Your task to perform on an android device: open app "Yahoo Mail" Image 0: 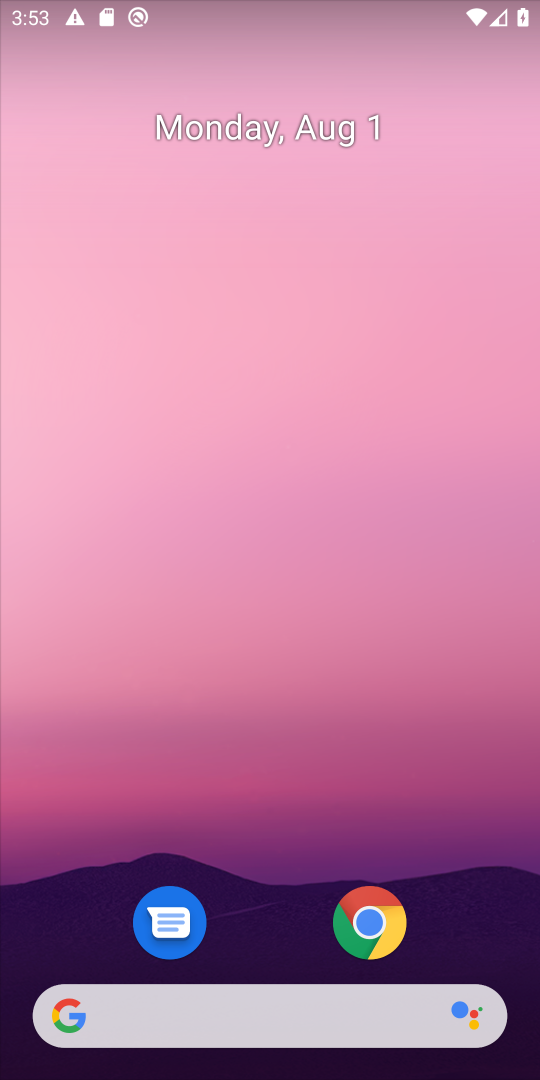
Step 0: drag from (304, 859) to (164, 7)
Your task to perform on an android device: open app "Yahoo Mail" Image 1: 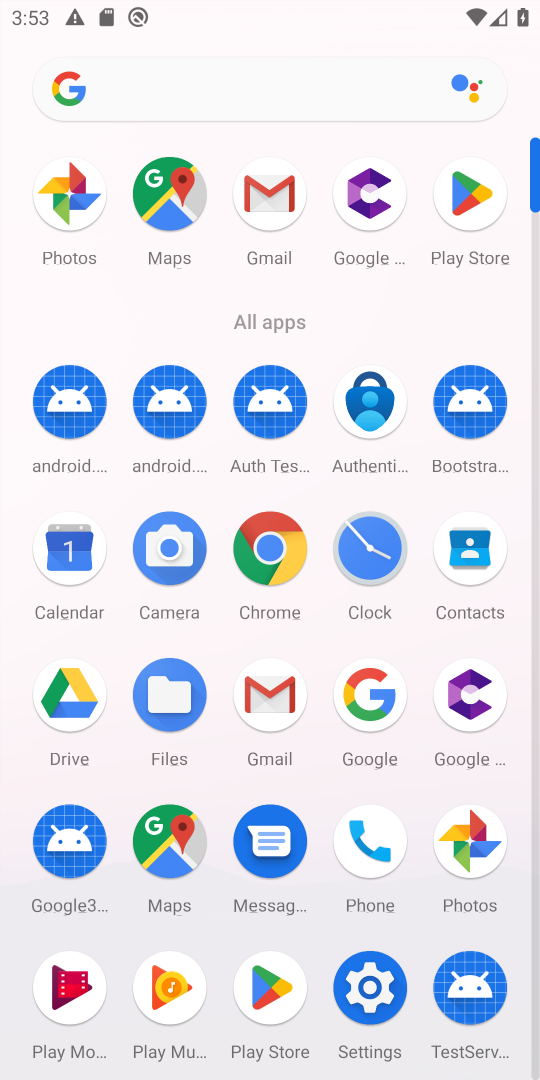
Step 1: click (490, 218)
Your task to perform on an android device: open app "Yahoo Mail" Image 2: 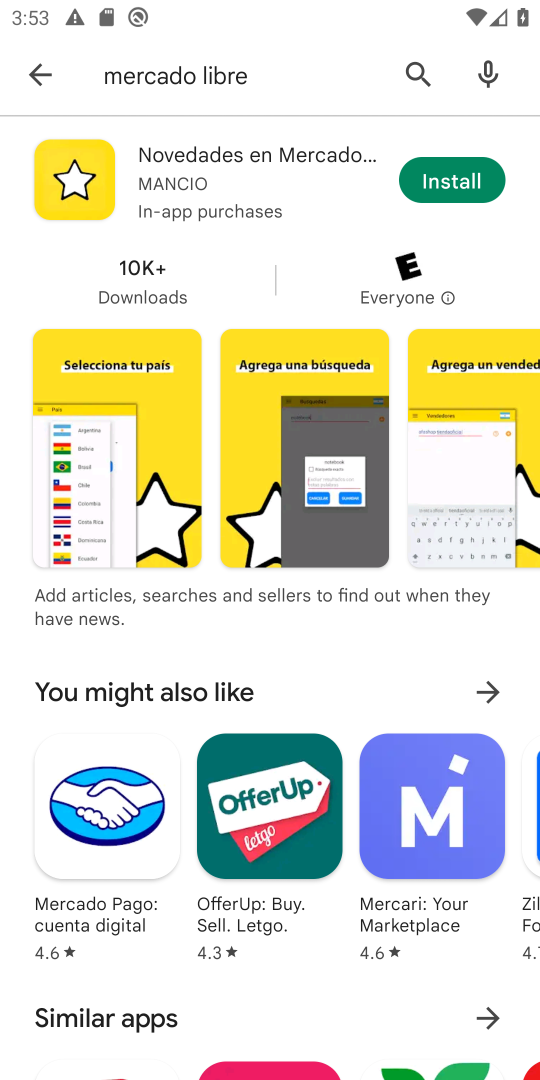
Step 2: click (416, 79)
Your task to perform on an android device: open app "Yahoo Mail" Image 3: 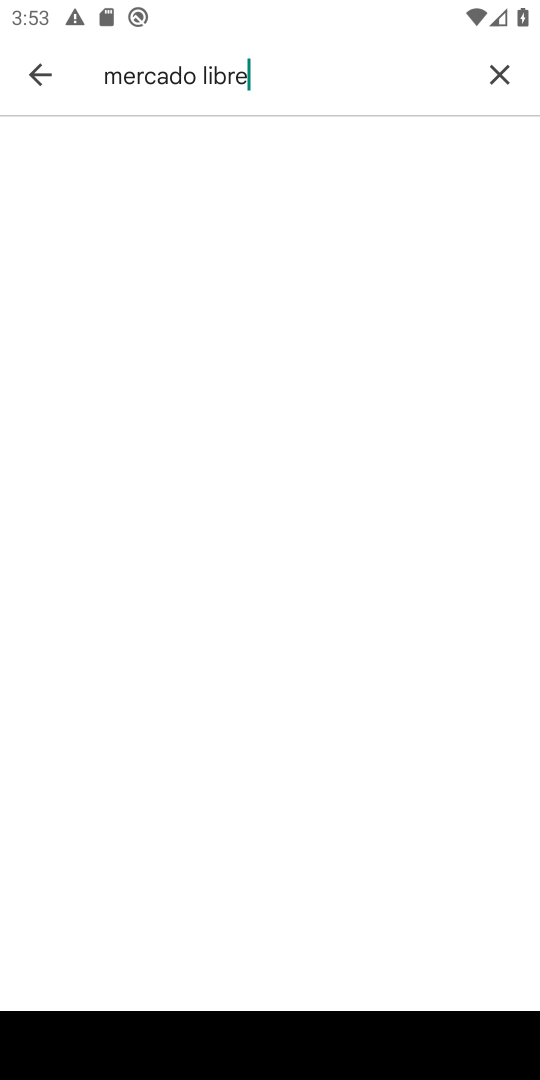
Step 3: click (512, 83)
Your task to perform on an android device: open app "Yahoo Mail" Image 4: 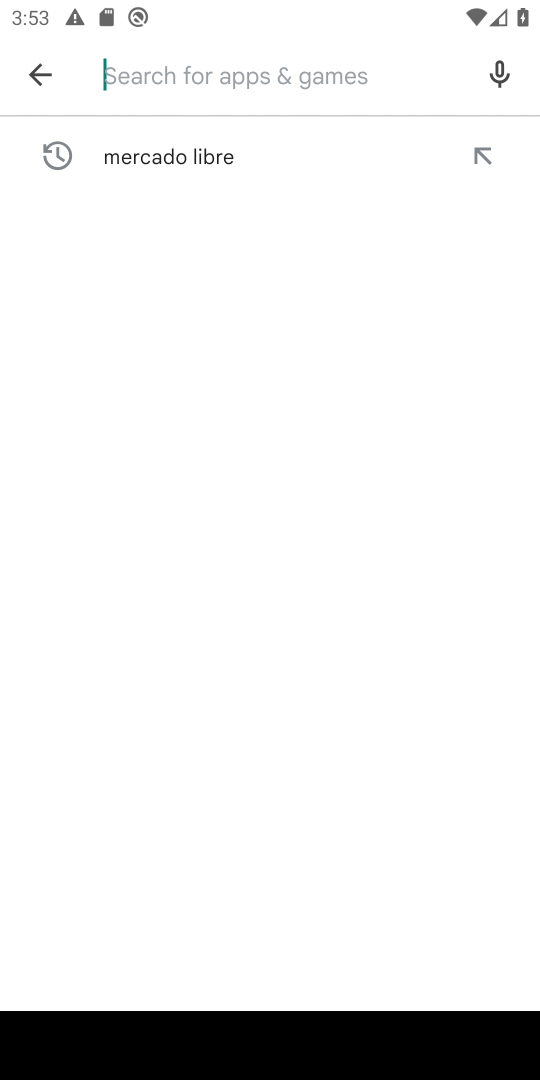
Step 4: type "Yahoo Mail"
Your task to perform on an android device: open app "Yahoo Mail" Image 5: 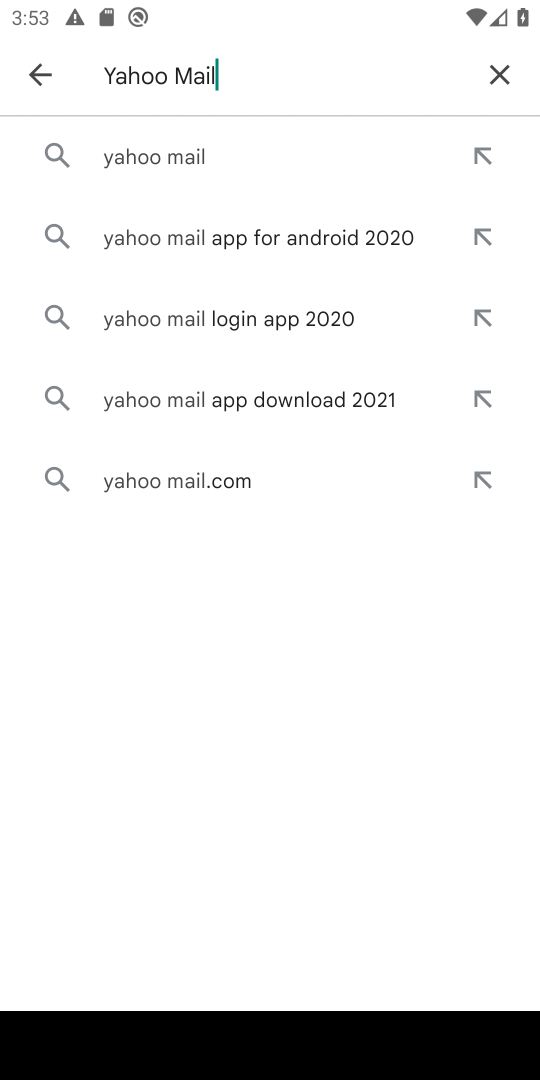
Step 5: click (155, 164)
Your task to perform on an android device: open app "Yahoo Mail" Image 6: 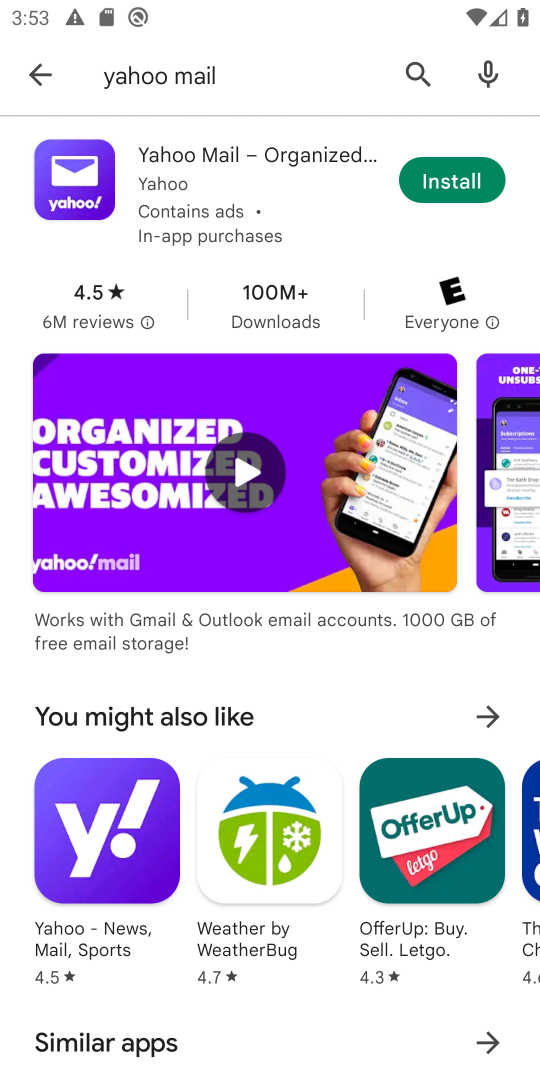
Step 6: task complete